Your task to perform on an android device: Show me popular videos on Youtube Image 0: 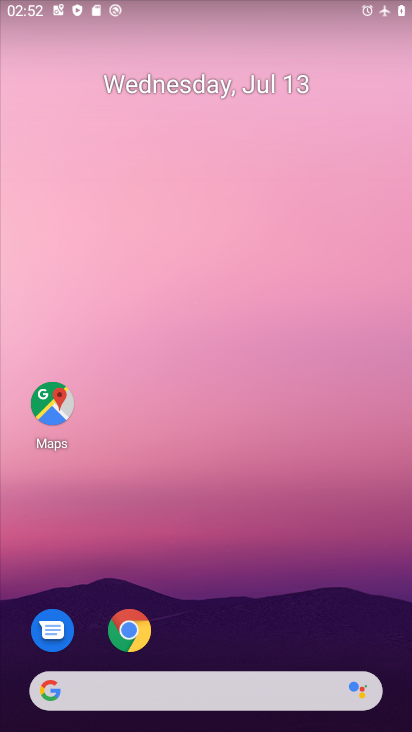
Step 0: drag from (213, 654) to (194, 272)
Your task to perform on an android device: Show me popular videos on Youtube Image 1: 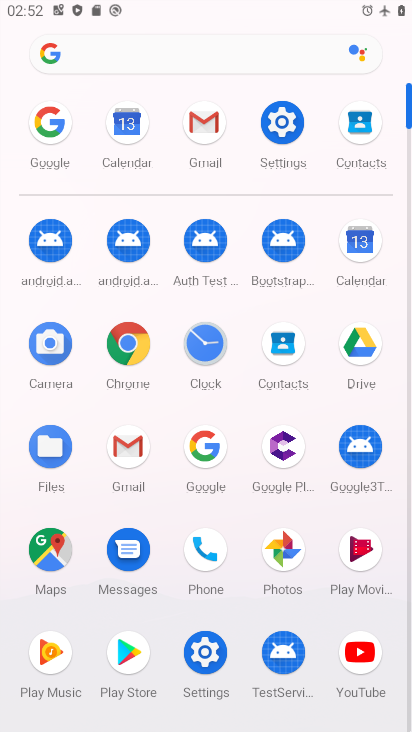
Step 1: click (357, 667)
Your task to perform on an android device: Show me popular videos on Youtube Image 2: 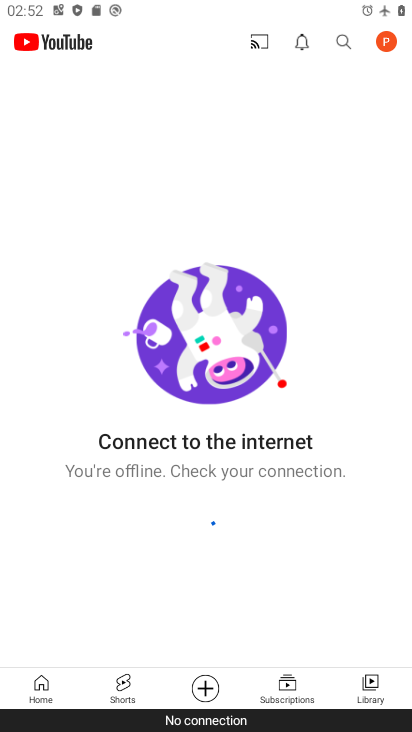
Step 2: click (336, 40)
Your task to perform on an android device: Show me popular videos on Youtube Image 3: 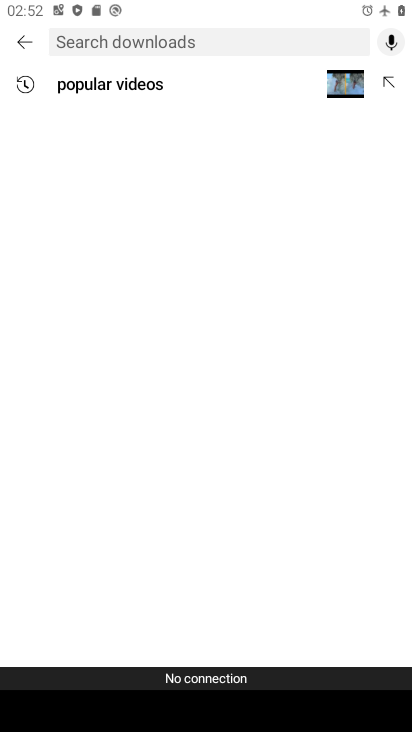
Step 3: click (175, 83)
Your task to perform on an android device: Show me popular videos on Youtube Image 4: 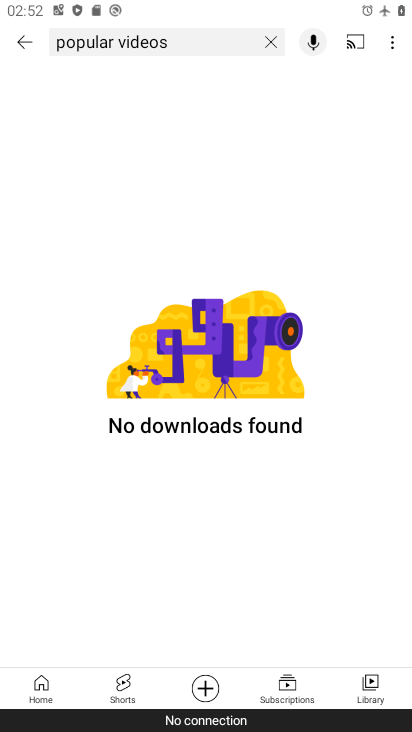
Step 4: task complete